Your task to perform on an android device: delete the emails in spam in the gmail app Image 0: 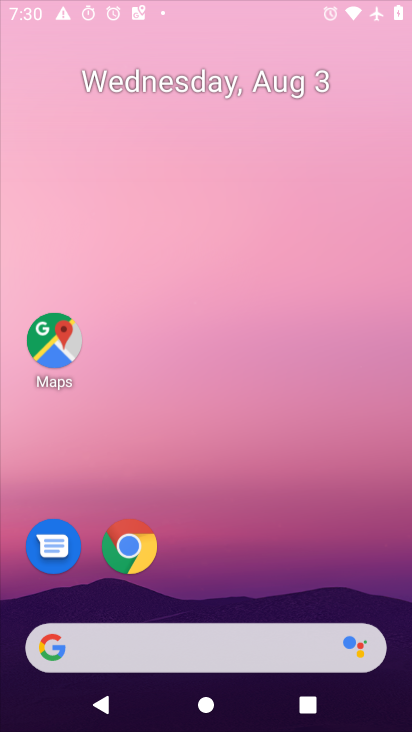
Step 0: press home button
Your task to perform on an android device: delete the emails in spam in the gmail app Image 1: 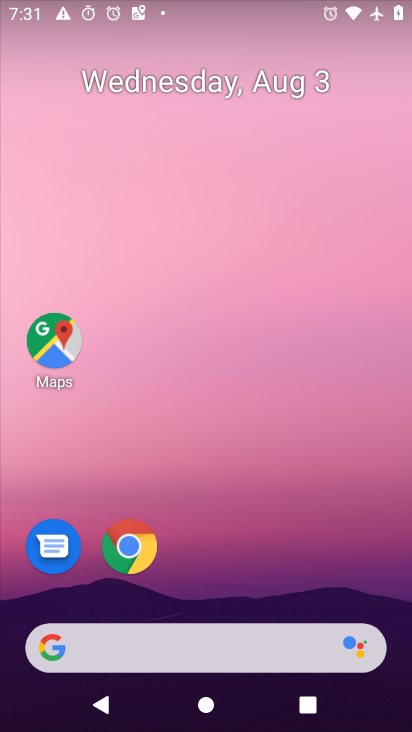
Step 1: drag from (213, 596) to (290, 98)
Your task to perform on an android device: delete the emails in spam in the gmail app Image 2: 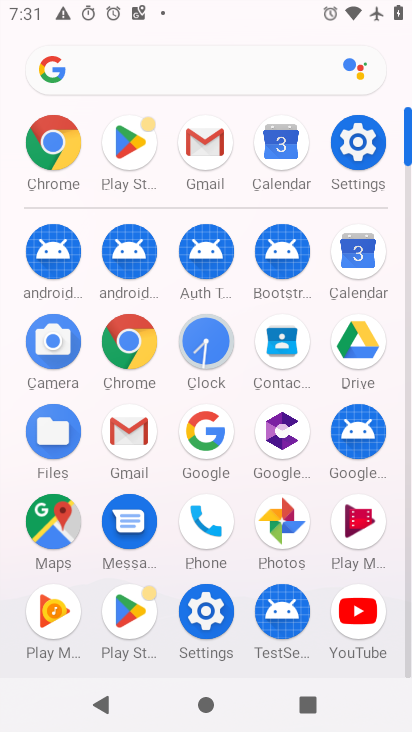
Step 2: click (194, 150)
Your task to perform on an android device: delete the emails in spam in the gmail app Image 3: 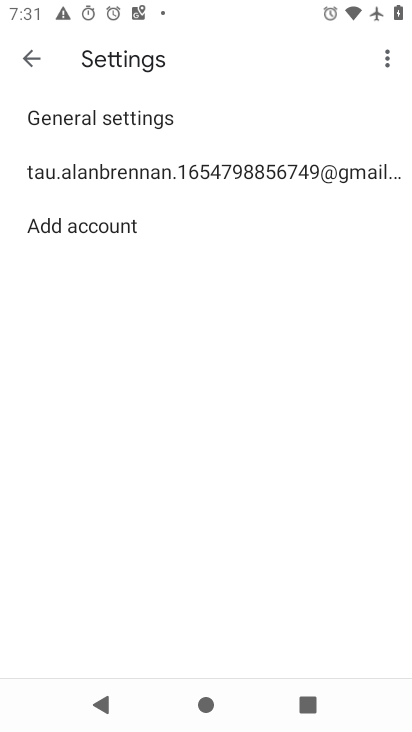
Step 3: click (30, 57)
Your task to perform on an android device: delete the emails in spam in the gmail app Image 4: 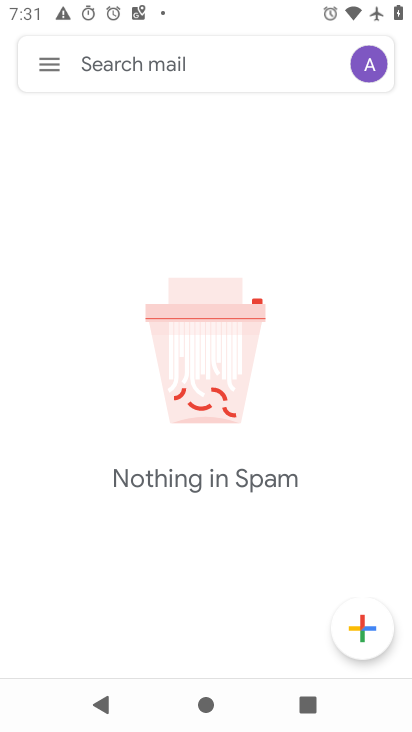
Step 4: click (50, 72)
Your task to perform on an android device: delete the emails in spam in the gmail app Image 5: 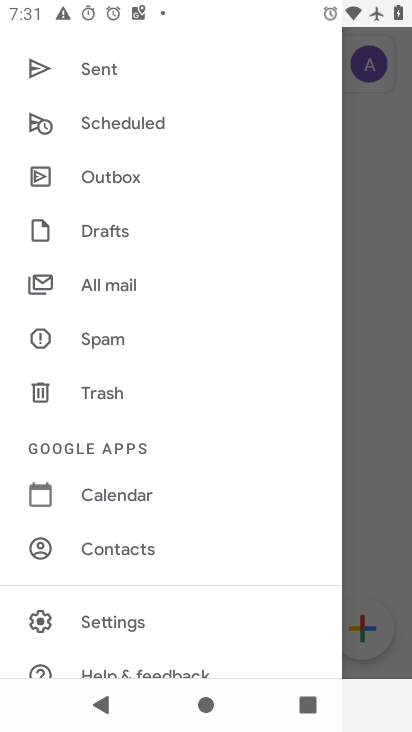
Step 5: click (99, 343)
Your task to perform on an android device: delete the emails in spam in the gmail app Image 6: 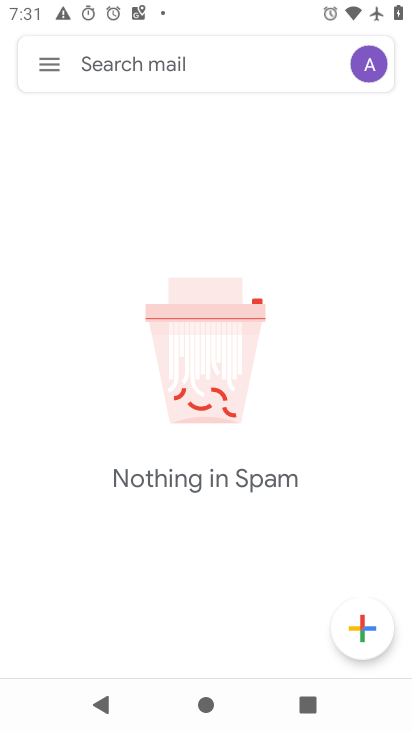
Step 6: task complete